Your task to perform on an android device: turn off priority inbox in the gmail app Image 0: 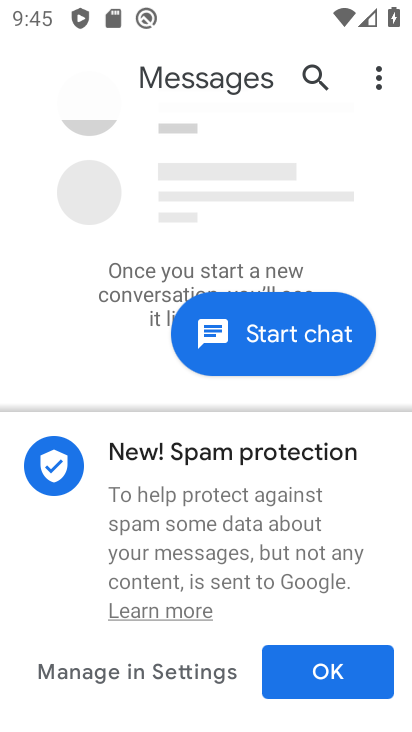
Step 0: press home button
Your task to perform on an android device: turn off priority inbox in the gmail app Image 1: 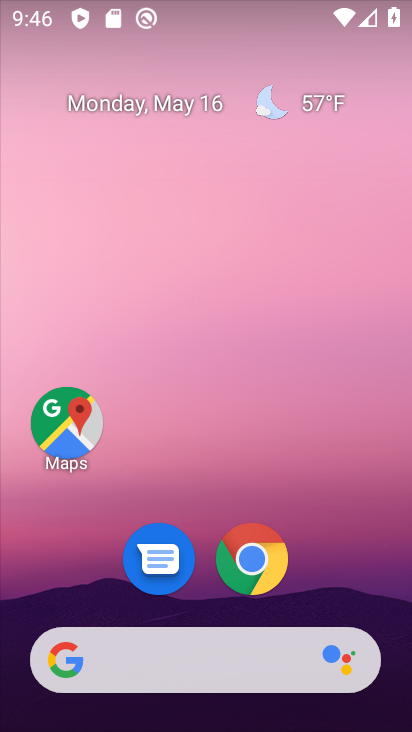
Step 1: click (377, 534)
Your task to perform on an android device: turn off priority inbox in the gmail app Image 2: 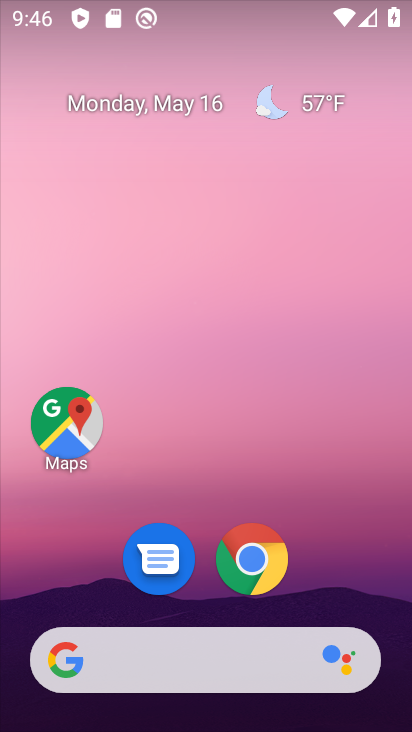
Step 2: drag from (341, 545) to (345, 208)
Your task to perform on an android device: turn off priority inbox in the gmail app Image 3: 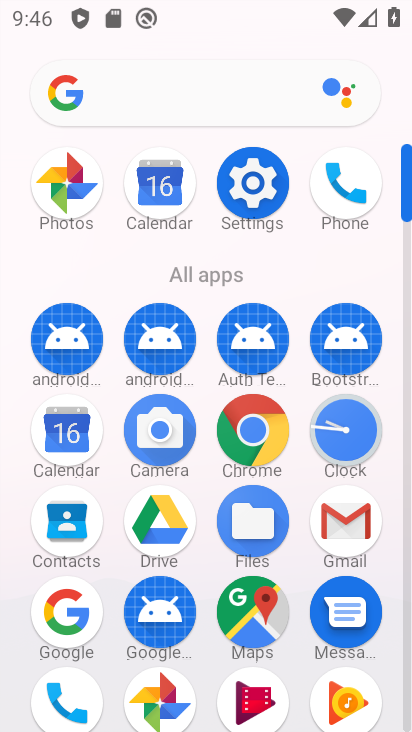
Step 3: click (338, 538)
Your task to perform on an android device: turn off priority inbox in the gmail app Image 4: 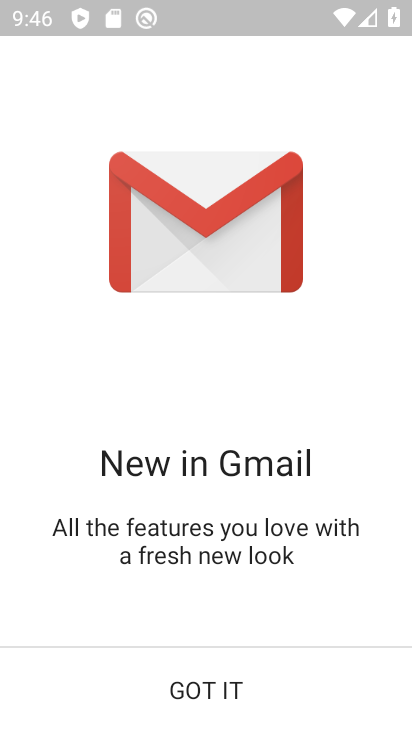
Step 4: click (241, 684)
Your task to perform on an android device: turn off priority inbox in the gmail app Image 5: 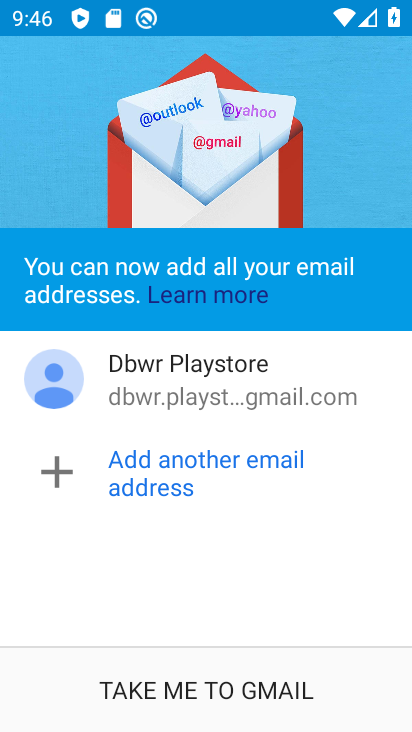
Step 5: click (218, 677)
Your task to perform on an android device: turn off priority inbox in the gmail app Image 6: 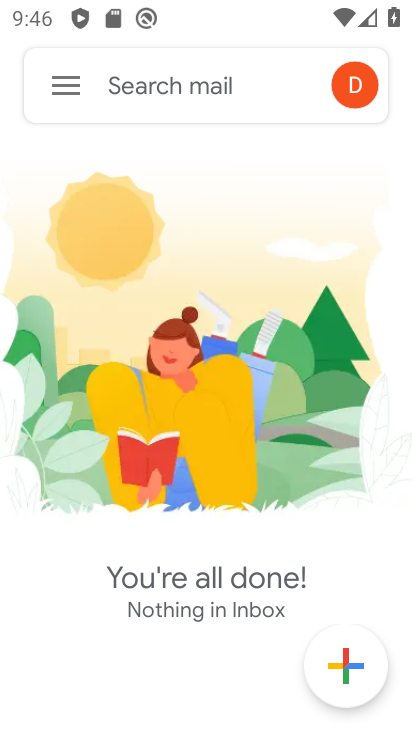
Step 6: click (65, 72)
Your task to perform on an android device: turn off priority inbox in the gmail app Image 7: 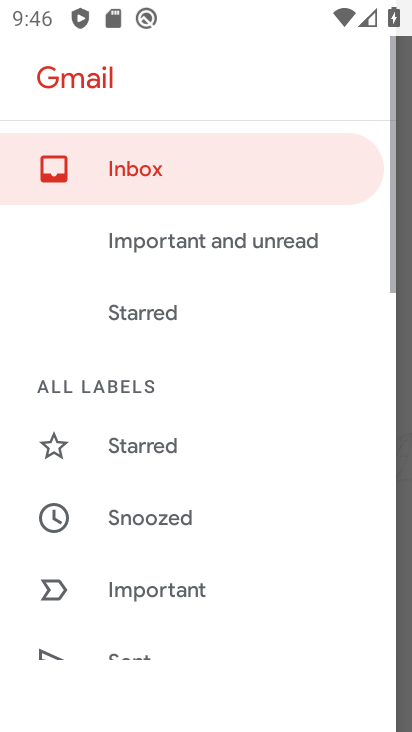
Step 7: drag from (153, 623) to (242, 218)
Your task to perform on an android device: turn off priority inbox in the gmail app Image 8: 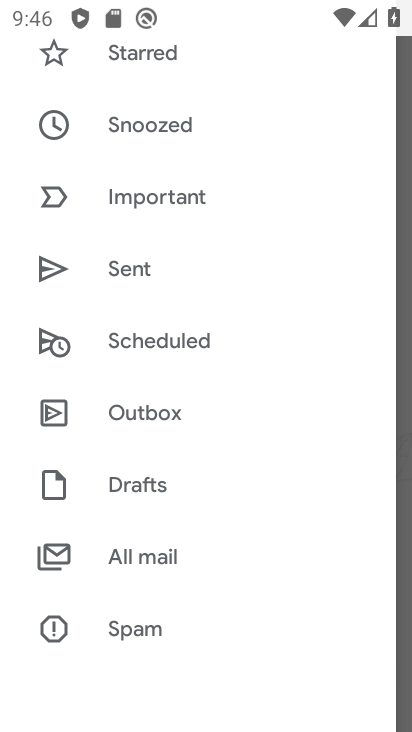
Step 8: drag from (244, 652) to (284, 319)
Your task to perform on an android device: turn off priority inbox in the gmail app Image 9: 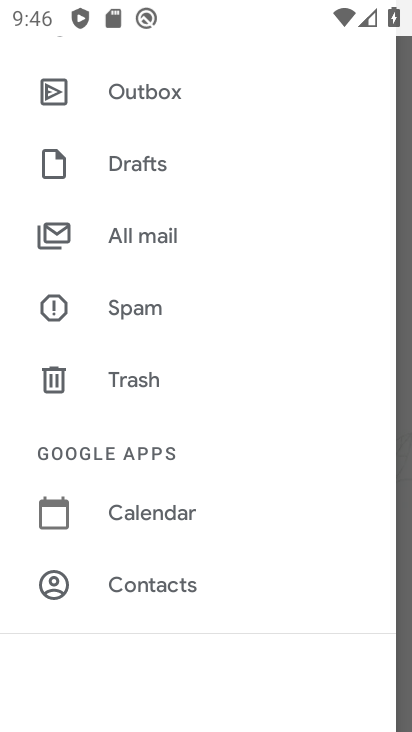
Step 9: drag from (214, 549) to (287, 255)
Your task to perform on an android device: turn off priority inbox in the gmail app Image 10: 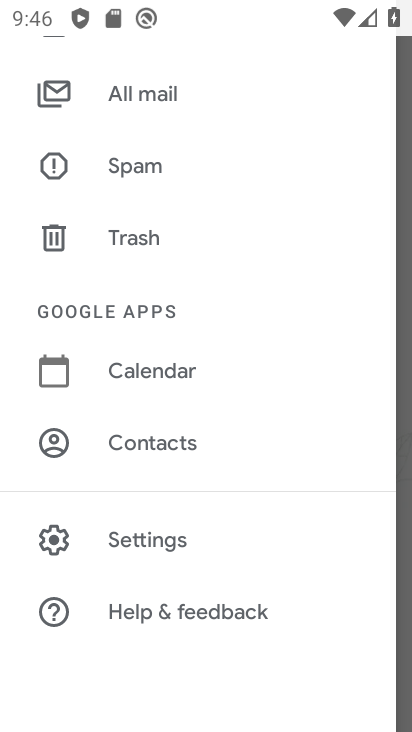
Step 10: click (163, 536)
Your task to perform on an android device: turn off priority inbox in the gmail app Image 11: 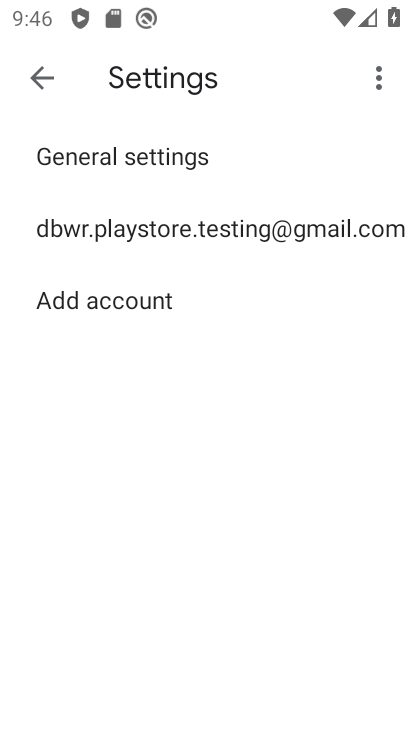
Step 11: click (251, 232)
Your task to perform on an android device: turn off priority inbox in the gmail app Image 12: 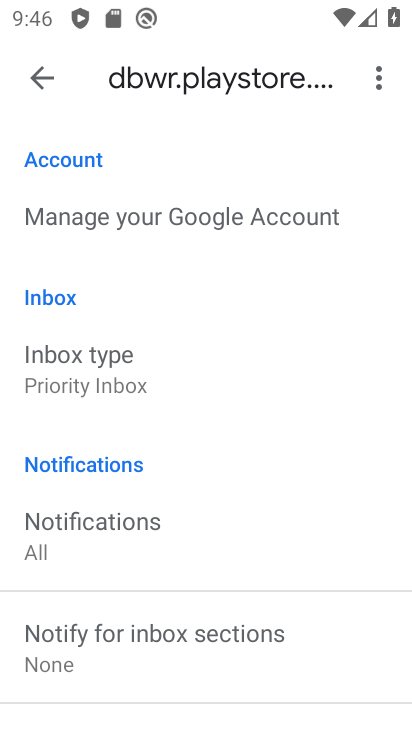
Step 12: click (113, 384)
Your task to perform on an android device: turn off priority inbox in the gmail app Image 13: 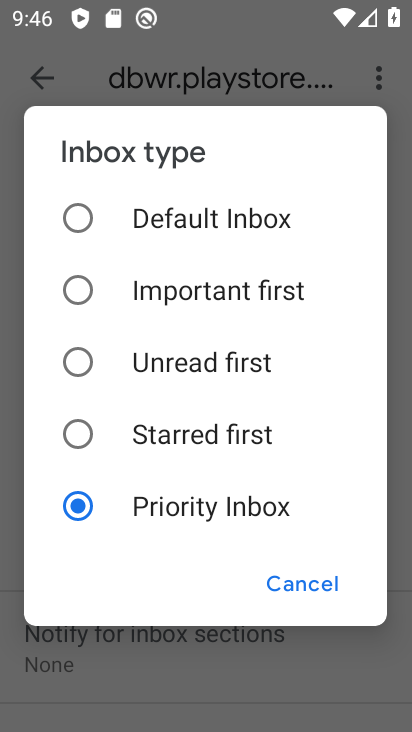
Step 13: task complete